Your task to perform on an android device: Open notification settings Image 0: 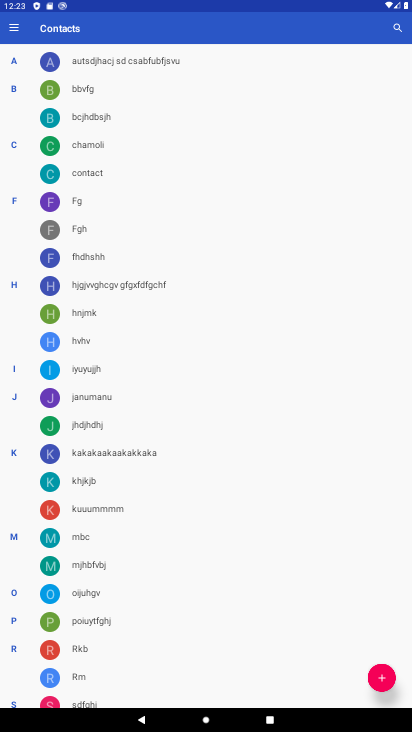
Step 0: press home button
Your task to perform on an android device: Open notification settings Image 1: 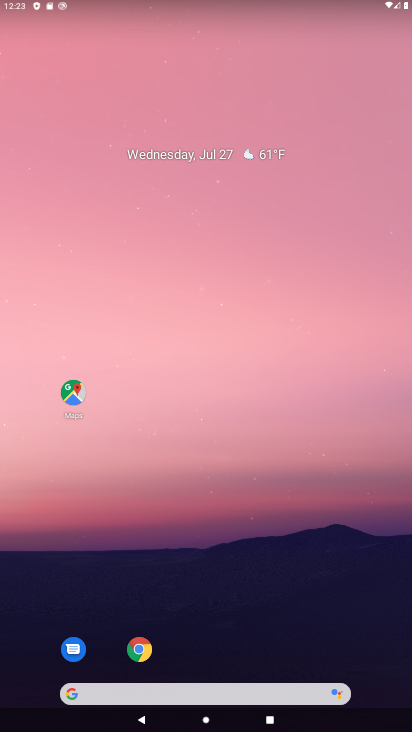
Step 1: drag from (230, 609) to (227, 183)
Your task to perform on an android device: Open notification settings Image 2: 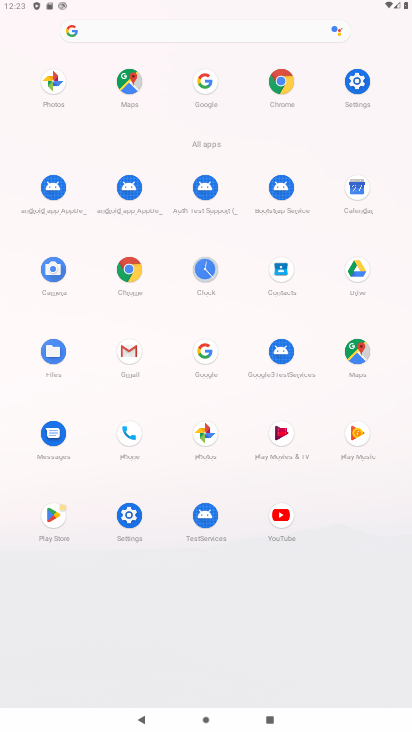
Step 2: click (361, 76)
Your task to perform on an android device: Open notification settings Image 3: 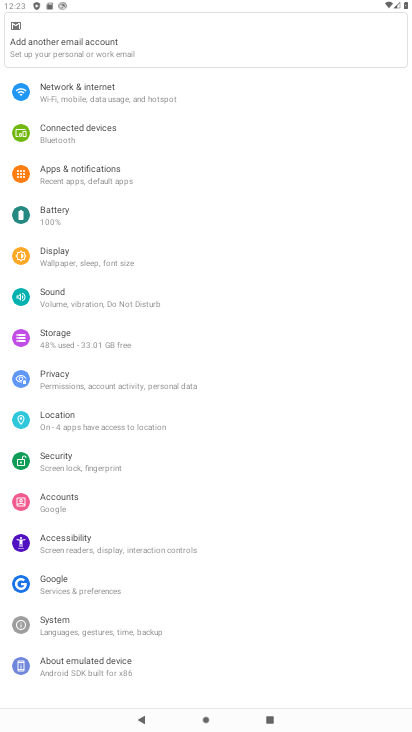
Step 3: click (133, 181)
Your task to perform on an android device: Open notification settings Image 4: 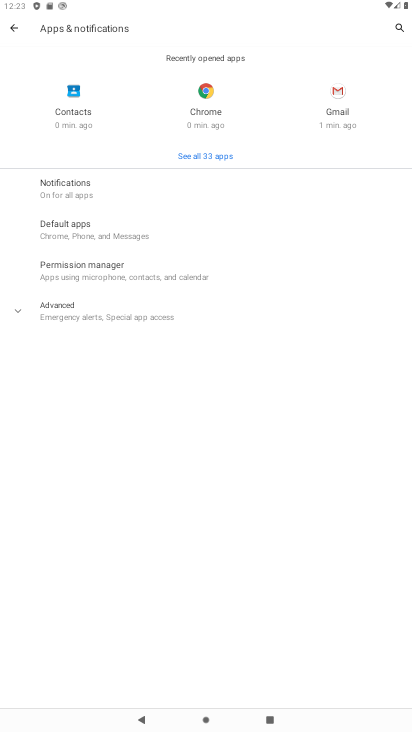
Step 4: click (134, 188)
Your task to perform on an android device: Open notification settings Image 5: 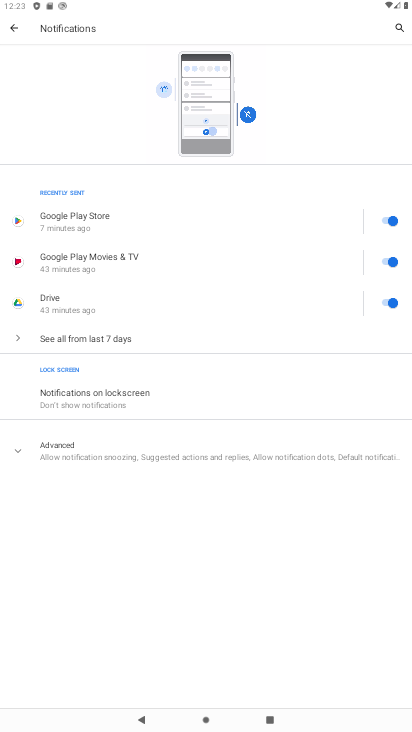
Step 5: task complete